Your task to perform on an android device: Open Google Chrome and open the bookmarks view Image 0: 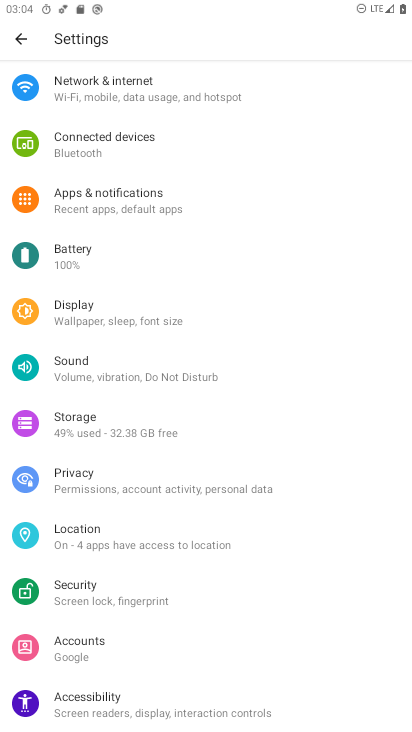
Step 0: press home button
Your task to perform on an android device: Open Google Chrome and open the bookmarks view Image 1: 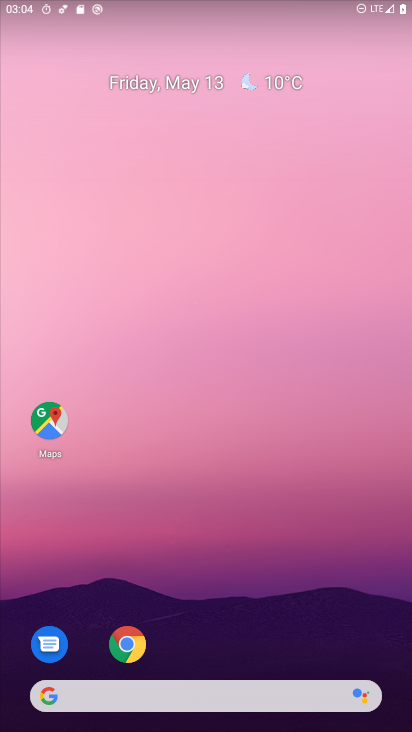
Step 1: drag from (335, 674) to (354, 6)
Your task to perform on an android device: Open Google Chrome and open the bookmarks view Image 2: 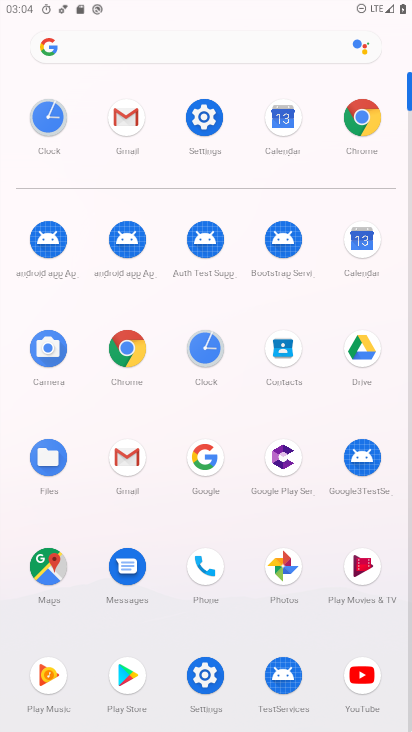
Step 2: click (127, 357)
Your task to perform on an android device: Open Google Chrome and open the bookmarks view Image 3: 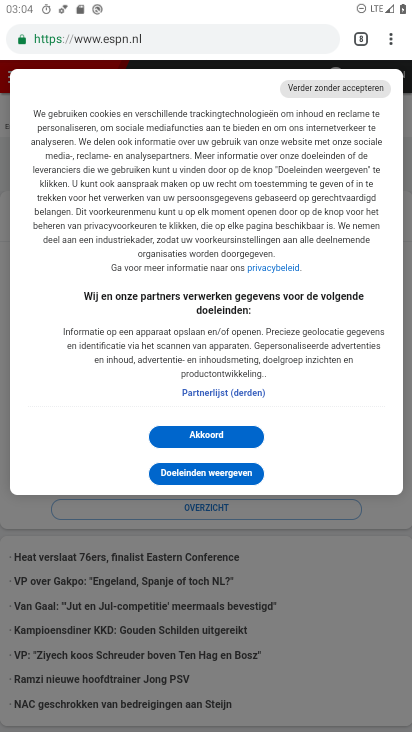
Step 3: task complete